Your task to perform on an android device: Do I have any events tomorrow? Image 0: 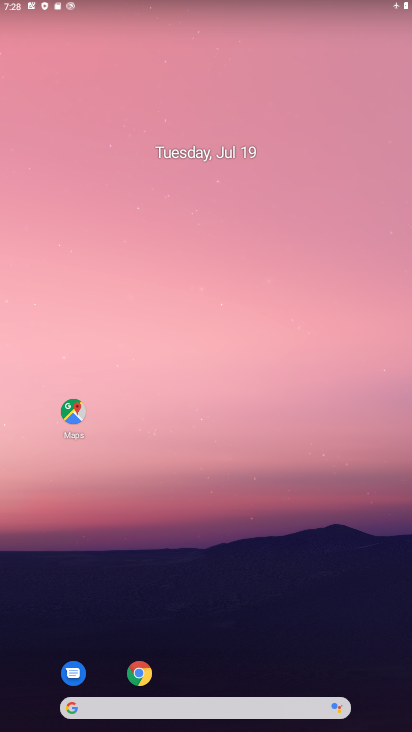
Step 0: drag from (368, 684) to (262, 40)
Your task to perform on an android device: Do I have any events tomorrow? Image 1: 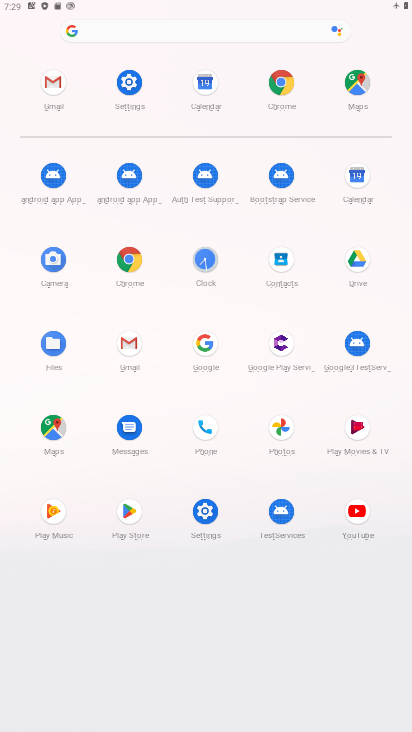
Step 1: click (359, 175)
Your task to perform on an android device: Do I have any events tomorrow? Image 2: 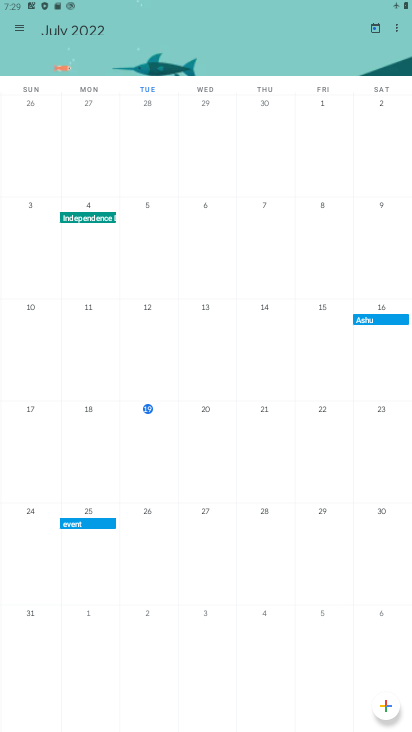
Step 2: task complete